Your task to perform on an android device: turn on priority inbox in the gmail app Image 0: 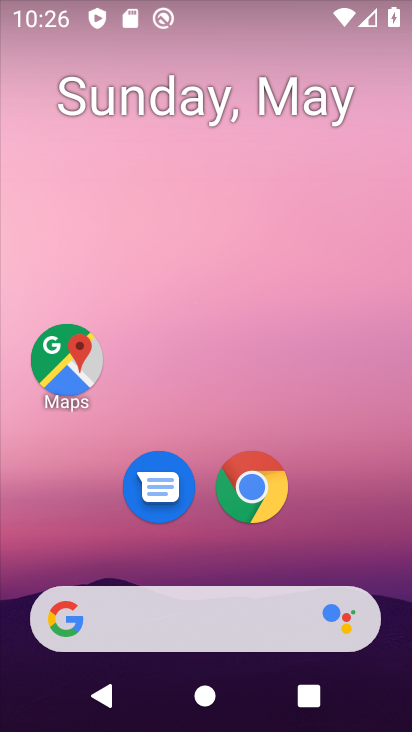
Step 0: drag from (163, 587) to (210, 230)
Your task to perform on an android device: turn on priority inbox in the gmail app Image 1: 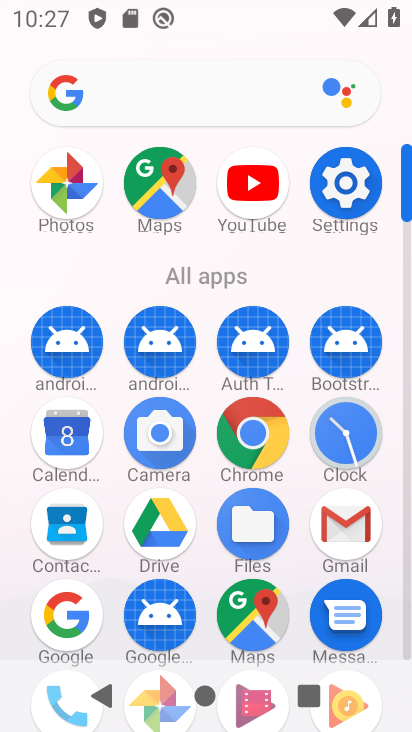
Step 1: click (367, 521)
Your task to perform on an android device: turn on priority inbox in the gmail app Image 2: 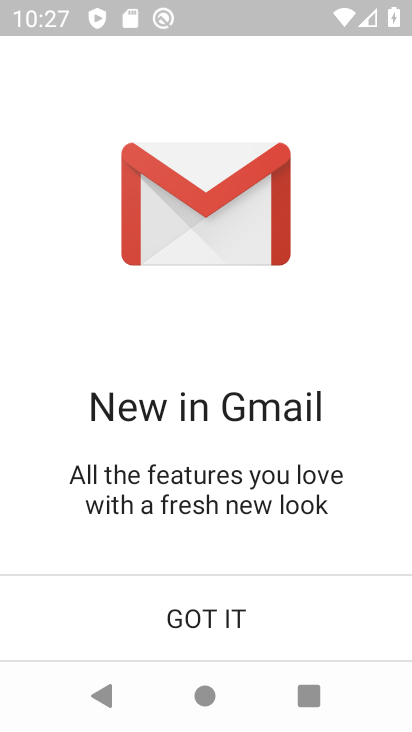
Step 2: click (250, 627)
Your task to perform on an android device: turn on priority inbox in the gmail app Image 3: 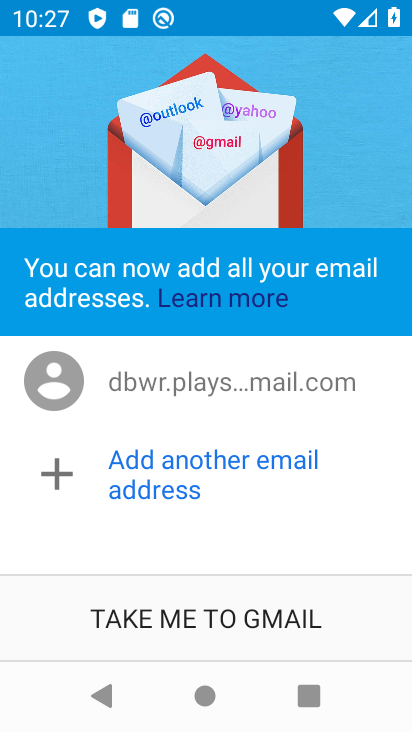
Step 3: click (250, 627)
Your task to perform on an android device: turn on priority inbox in the gmail app Image 4: 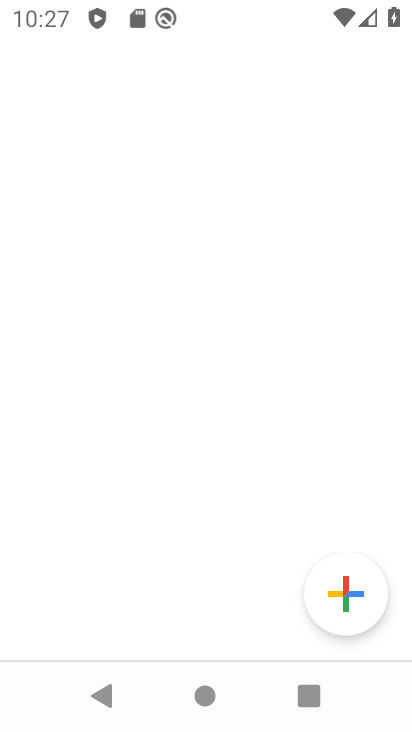
Step 4: click (250, 627)
Your task to perform on an android device: turn on priority inbox in the gmail app Image 5: 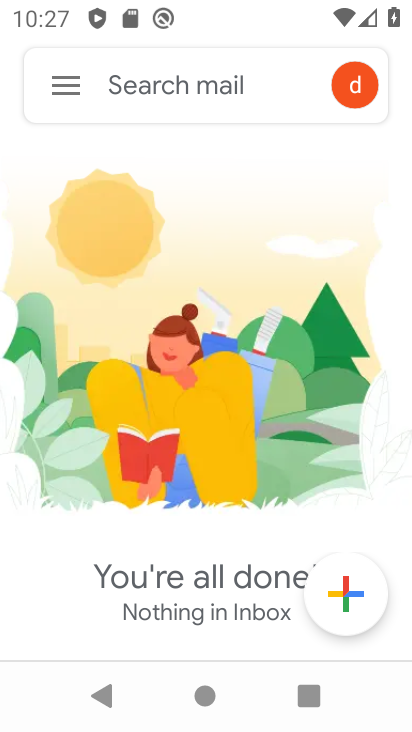
Step 5: click (59, 88)
Your task to perform on an android device: turn on priority inbox in the gmail app Image 6: 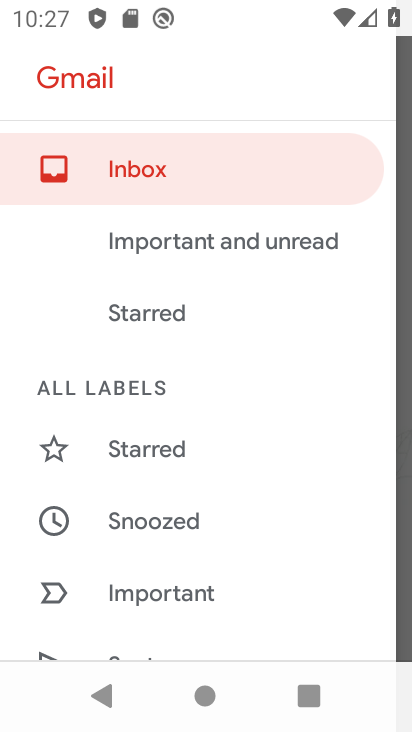
Step 6: drag from (167, 606) to (284, 219)
Your task to perform on an android device: turn on priority inbox in the gmail app Image 7: 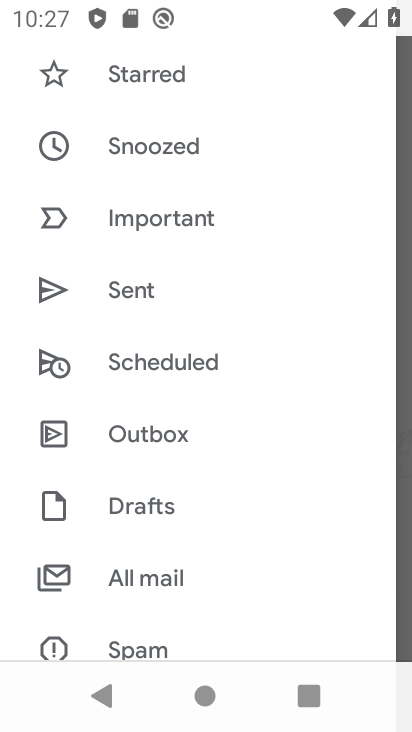
Step 7: drag from (212, 602) to (324, 297)
Your task to perform on an android device: turn on priority inbox in the gmail app Image 8: 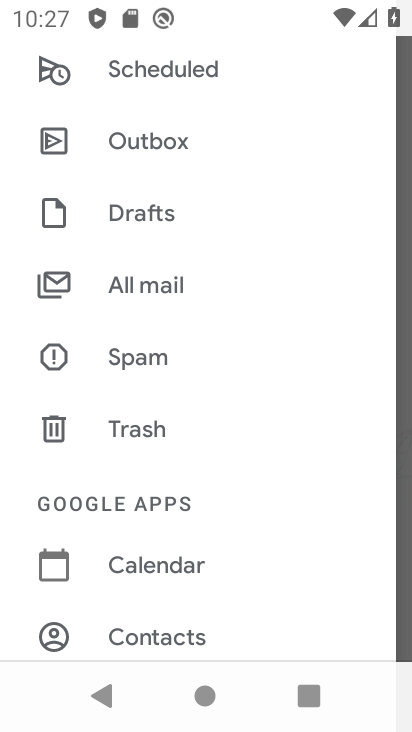
Step 8: drag from (178, 591) to (240, 411)
Your task to perform on an android device: turn on priority inbox in the gmail app Image 9: 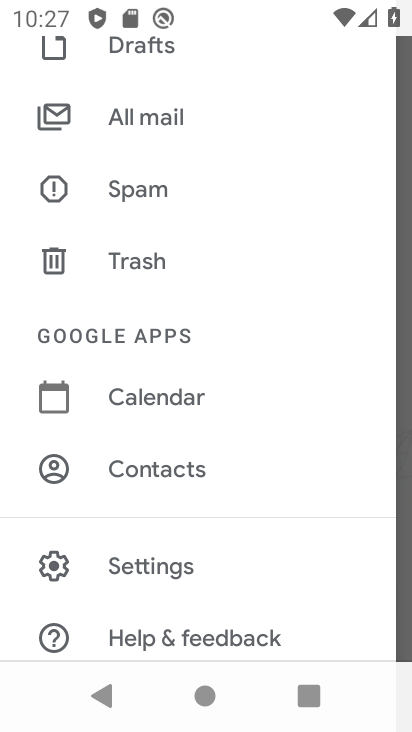
Step 9: click (204, 574)
Your task to perform on an android device: turn on priority inbox in the gmail app Image 10: 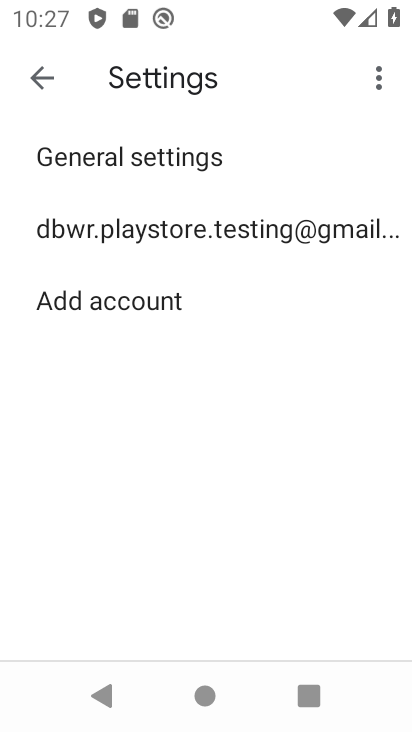
Step 10: click (336, 215)
Your task to perform on an android device: turn on priority inbox in the gmail app Image 11: 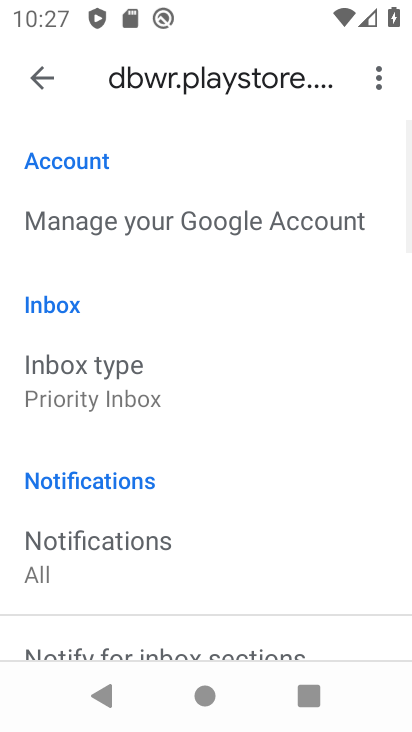
Step 11: click (186, 364)
Your task to perform on an android device: turn on priority inbox in the gmail app Image 12: 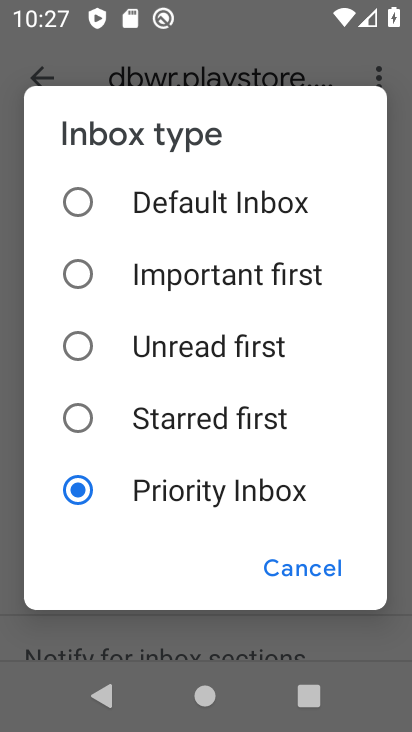
Step 12: task complete